Your task to perform on an android device: toggle location history Image 0: 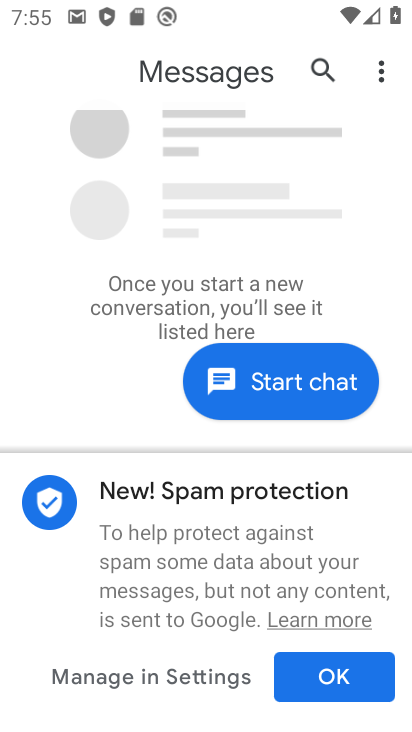
Step 0: press home button
Your task to perform on an android device: toggle location history Image 1: 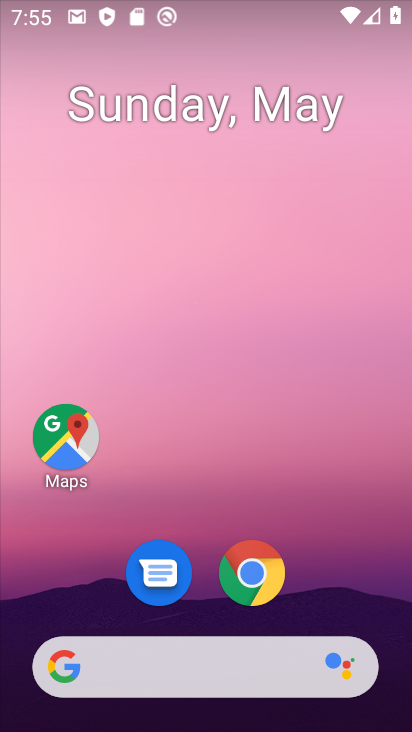
Step 1: drag from (197, 474) to (213, 16)
Your task to perform on an android device: toggle location history Image 2: 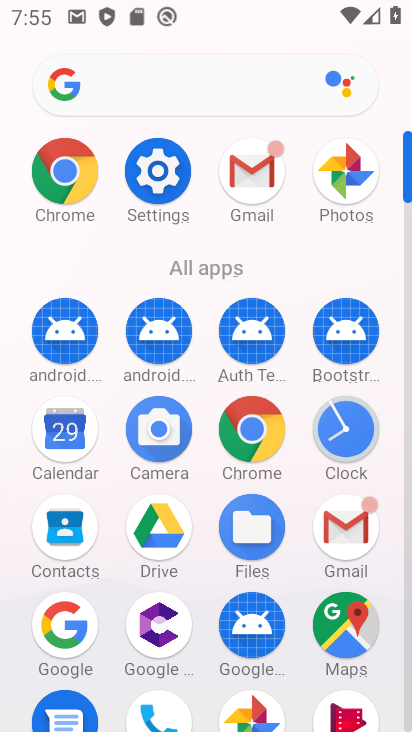
Step 2: click (161, 174)
Your task to perform on an android device: toggle location history Image 3: 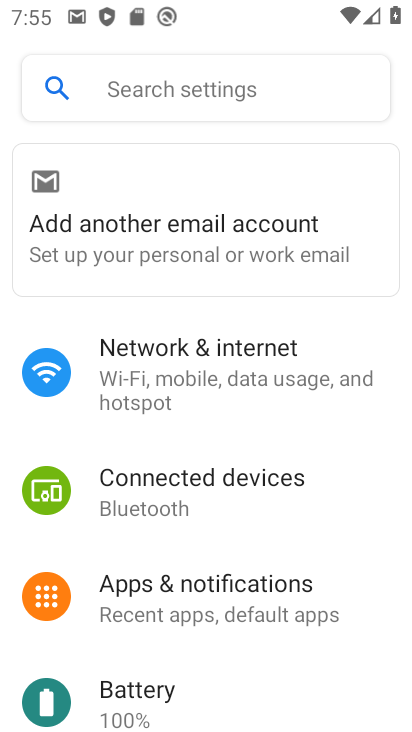
Step 3: drag from (260, 641) to (270, 232)
Your task to perform on an android device: toggle location history Image 4: 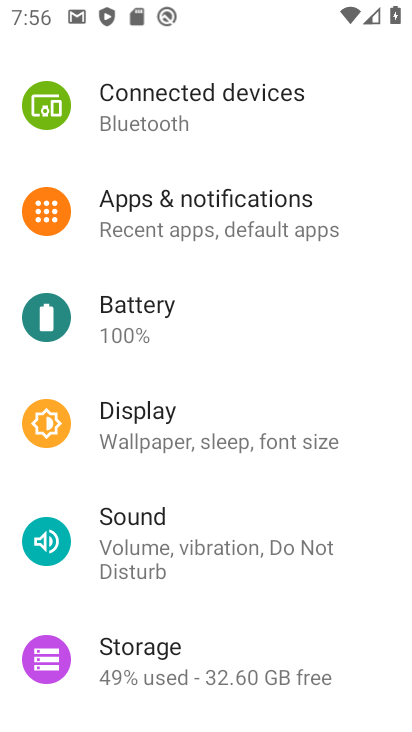
Step 4: drag from (216, 578) to (224, 160)
Your task to perform on an android device: toggle location history Image 5: 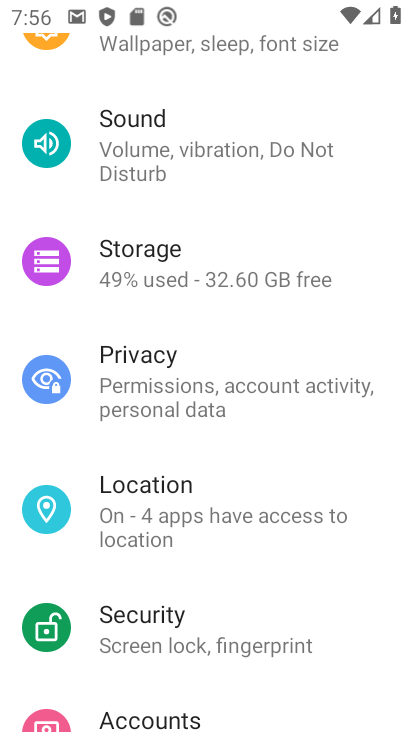
Step 5: click (218, 504)
Your task to perform on an android device: toggle location history Image 6: 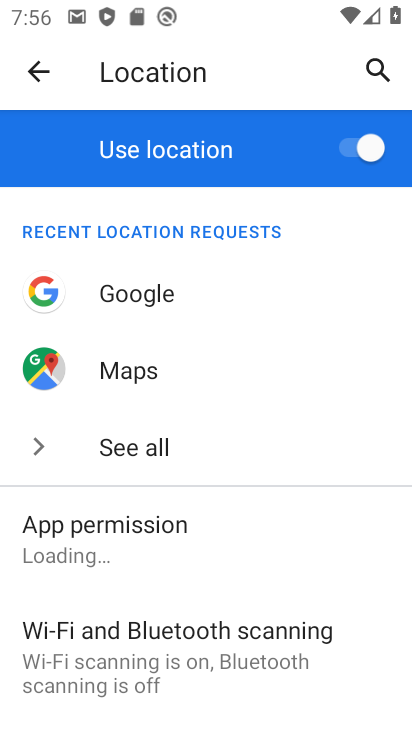
Step 6: drag from (213, 593) to (251, 212)
Your task to perform on an android device: toggle location history Image 7: 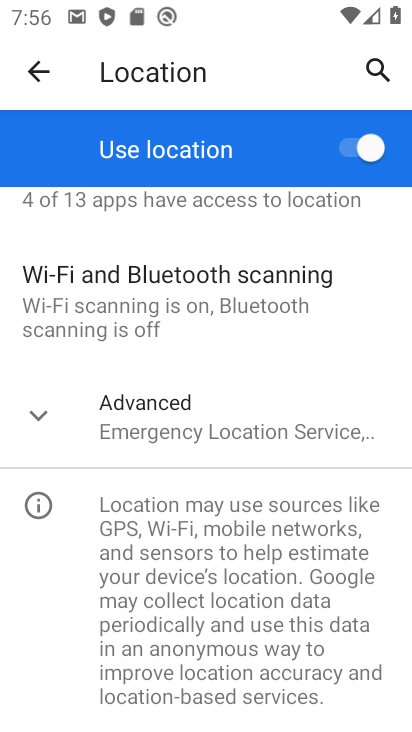
Step 7: click (36, 407)
Your task to perform on an android device: toggle location history Image 8: 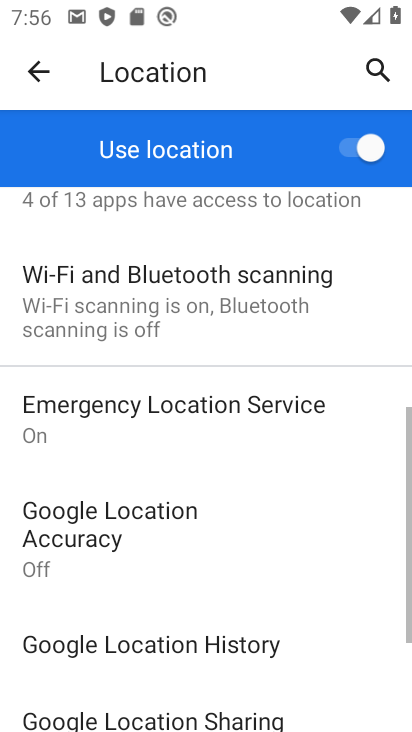
Step 8: drag from (230, 605) to (252, 392)
Your task to perform on an android device: toggle location history Image 9: 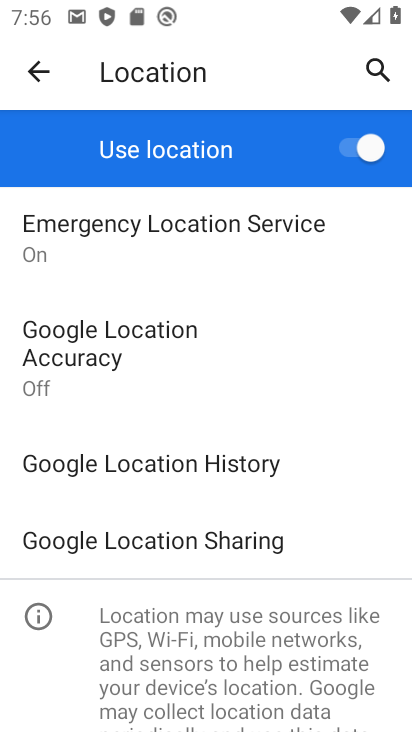
Step 9: click (242, 464)
Your task to perform on an android device: toggle location history Image 10: 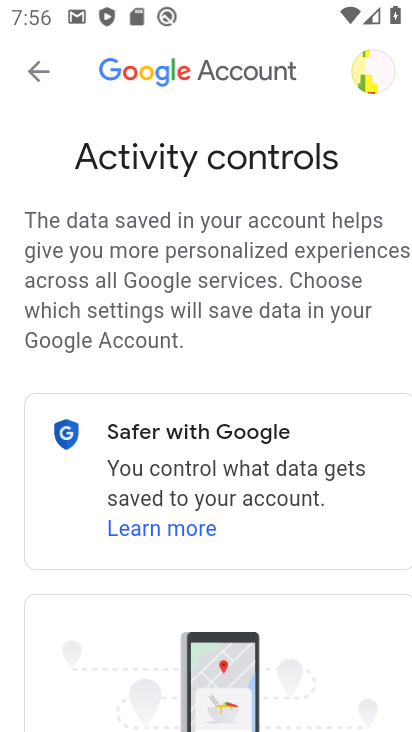
Step 10: drag from (280, 545) to (291, 142)
Your task to perform on an android device: toggle location history Image 11: 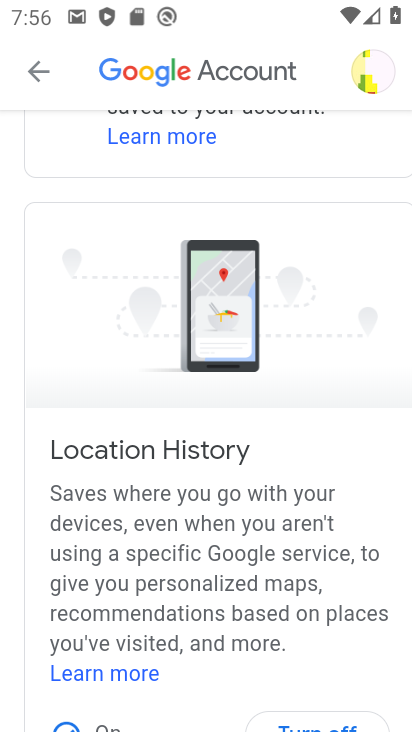
Step 11: drag from (248, 525) to (284, 228)
Your task to perform on an android device: toggle location history Image 12: 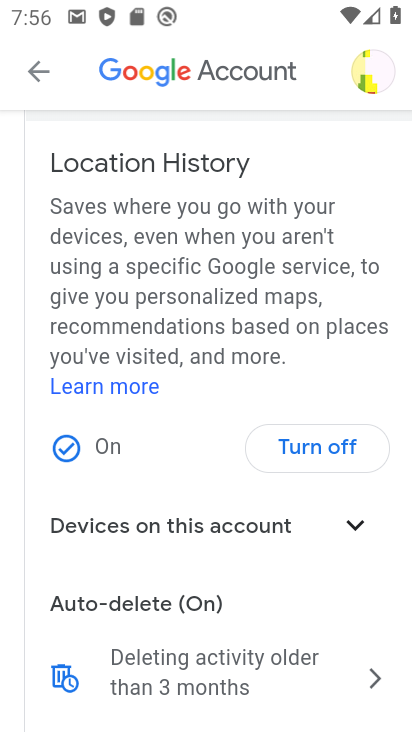
Step 12: click (325, 447)
Your task to perform on an android device: toggle location history Image 13: 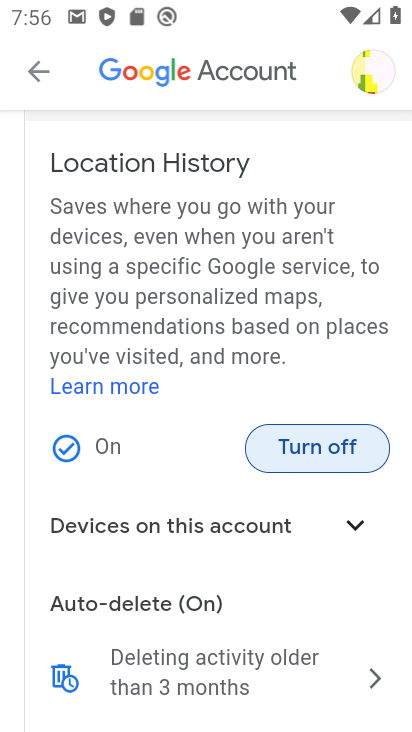
Step 13: click (325, 444)
Your task to perform on an android device: toggle location history Image 14: 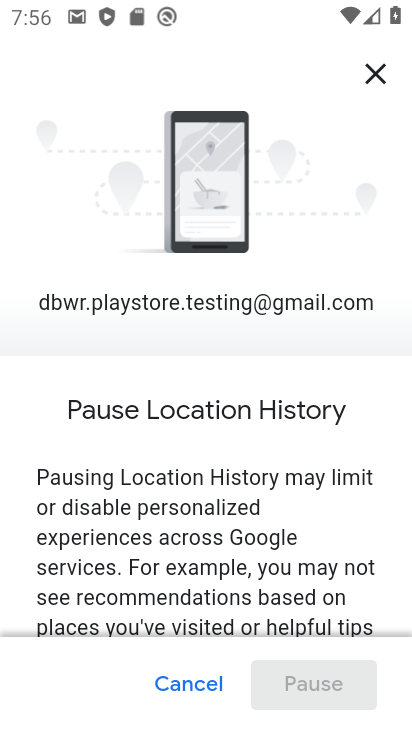
Step 14: drag from (305, 568) to (307, 132)
Your task to perform on an android device: toggle location history Image 15: 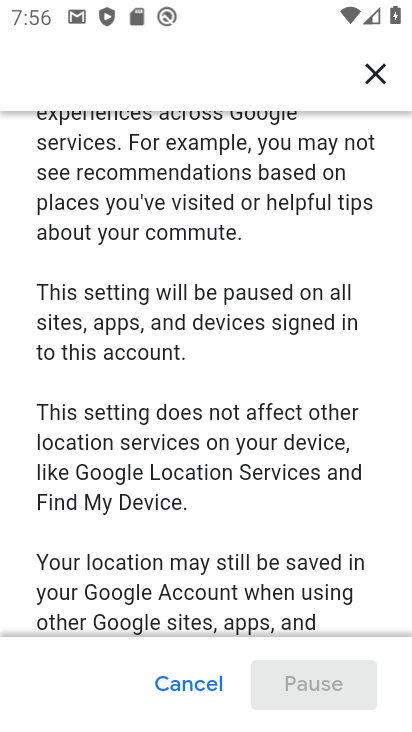
Step 15: drag from (212, 484) to (232, 47)
Your task to perform on an android device: toggle location history Image 16: 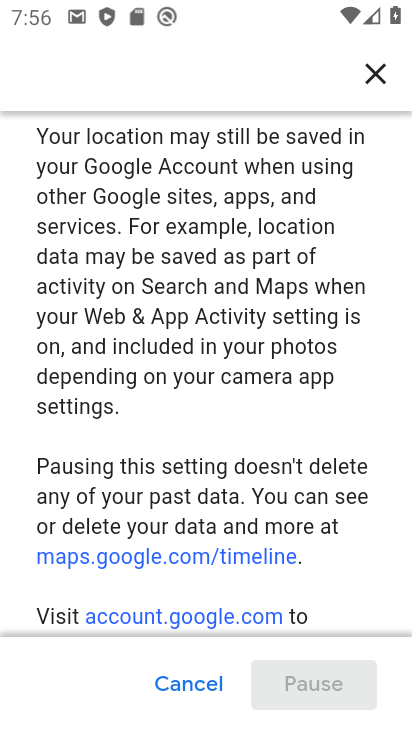
Step 16: drag from (232, 405) to (258, 48)
Your task to perform on an android device: toggle location history Image 17: 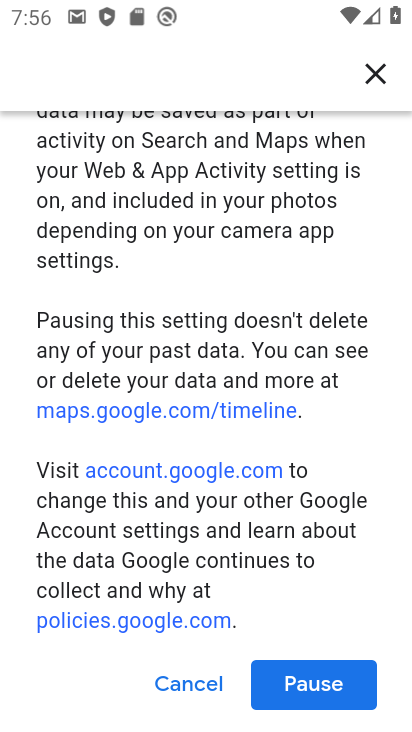
Step 17: click (323, 683)
Your task to perform on an android device: toggle location history Image 18: 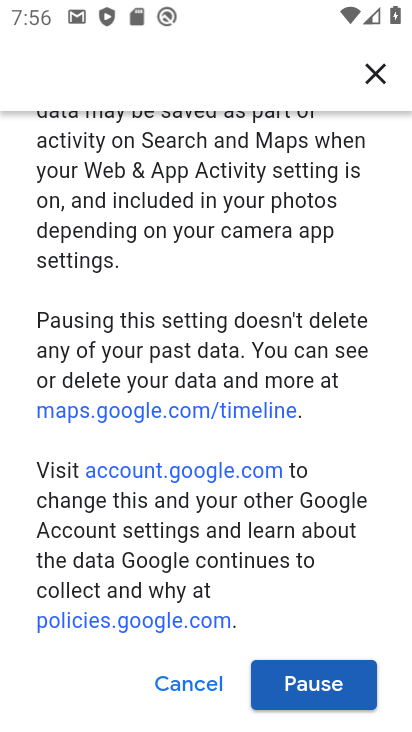
Step 18: click (323, 681)
Your task to perform on an android device: toggle location history Image 19: 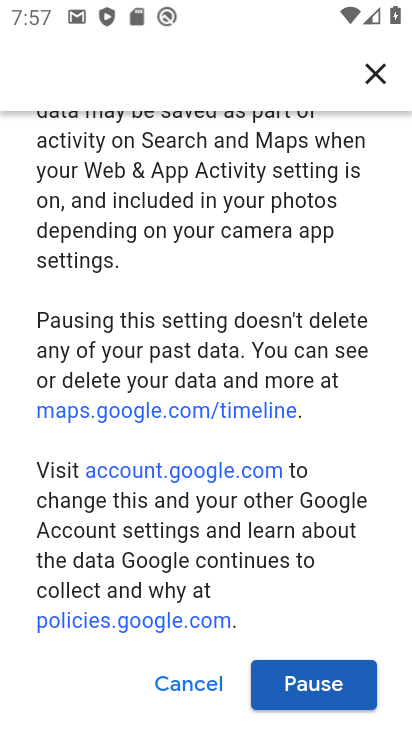
Step 19: click (323, 680)
Your task to perform on an android device: toggle location history Image 20: 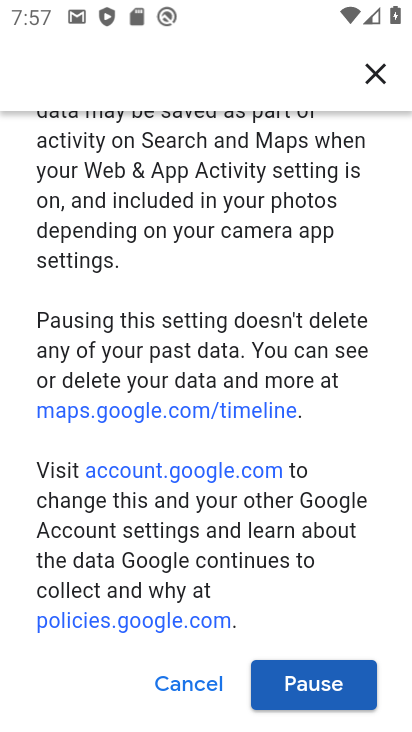
Step 20: click (323, 681)
Your task to perform on an android device: toggle location history Image 21: 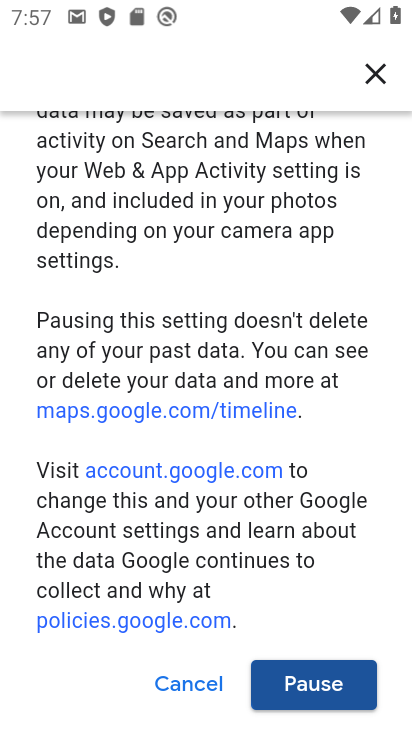
Step 21: click (323, 680)
Your task to perform on an android device: toggle location history Image 22: 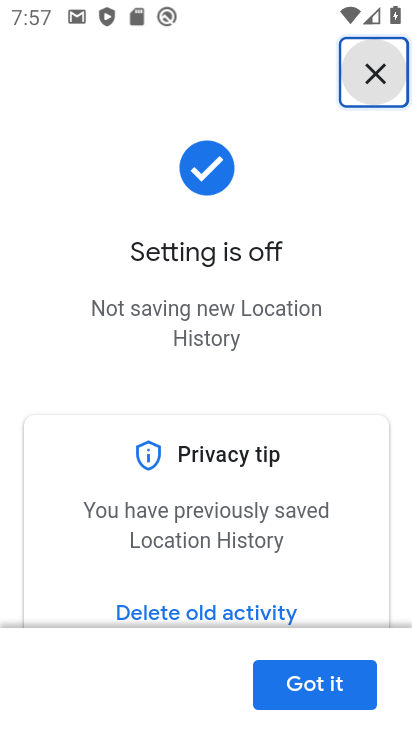
Step 22: click (323, 680)
Your task to perform on an android device: toggle location history Image 23: 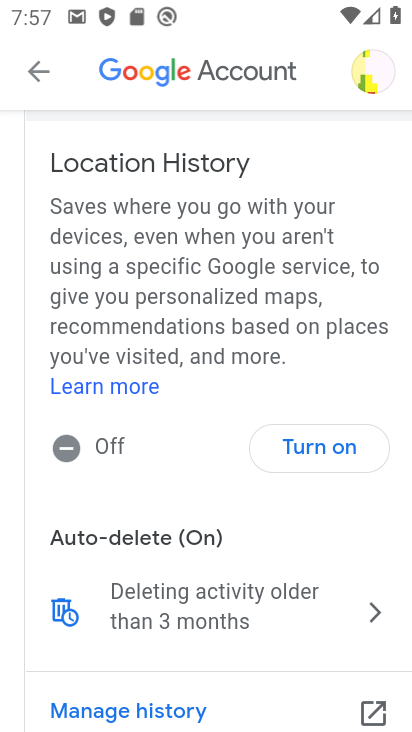
Step 23: task complete